Your task to perform on an android device: Open wifi settings Image 0: 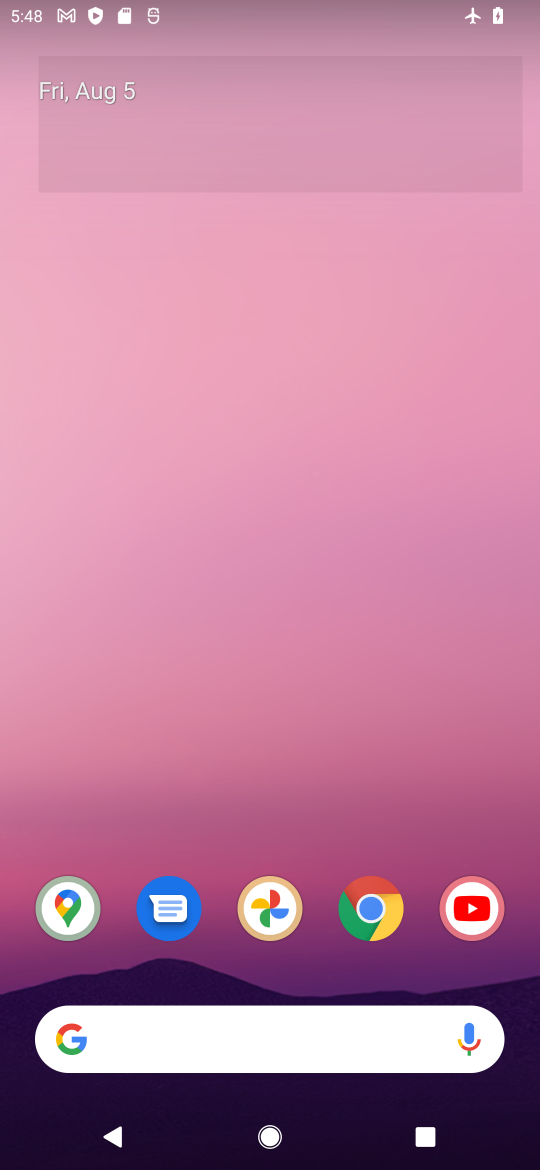
Step 0: click (227, 289)
Your task to perform on an android device: Open wifi settings Image 1: 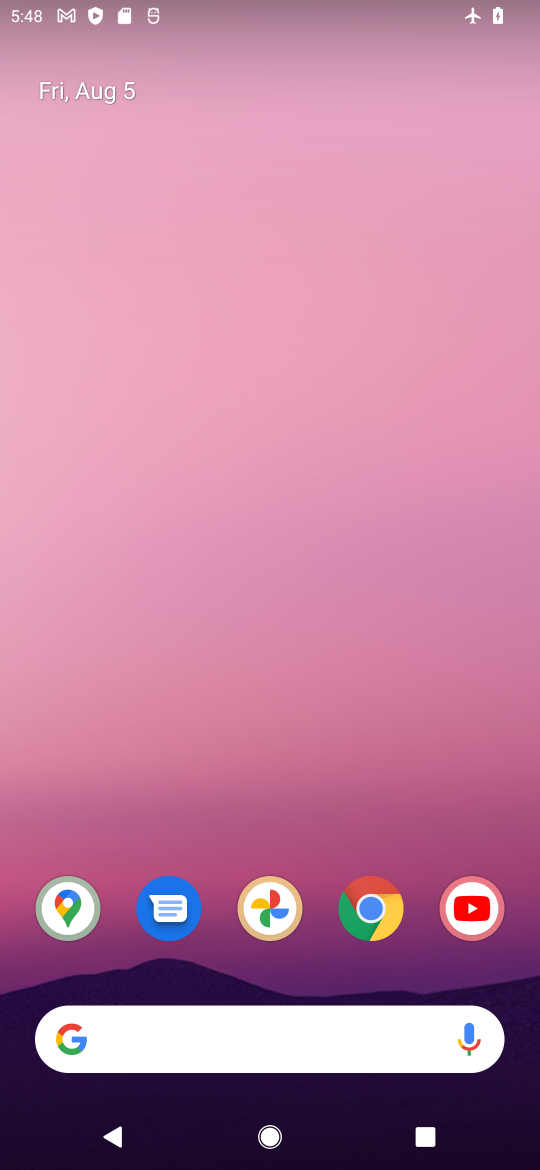
Step 1: drag from (290, 102) to (290, 22)
Your task to perform on an android device: Open wifi settings Image 2: 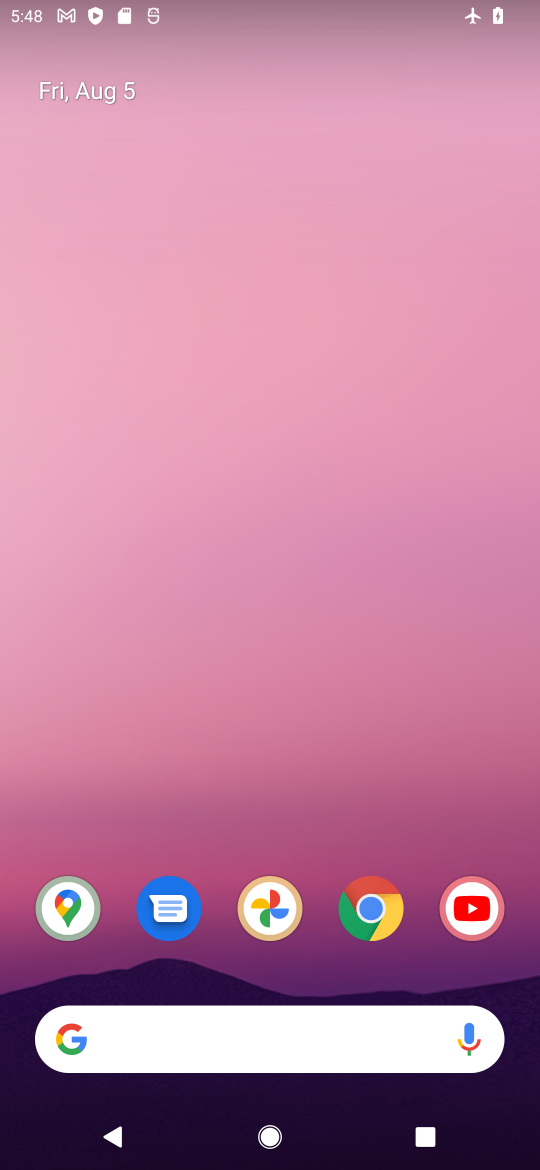
Step 2: drag from (263, 914) to (285, 131)
Your task to perform on an android device: Open wifi settings Image 3: 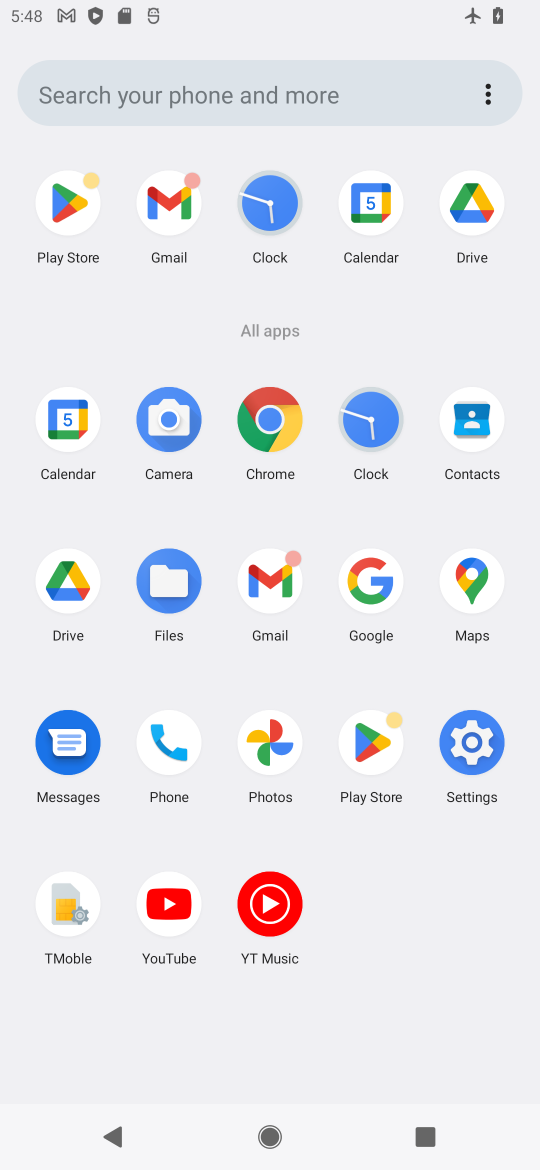
Step 3: click (469, 784)
Your task to perform on an android device: Open wifi settings Image 4: 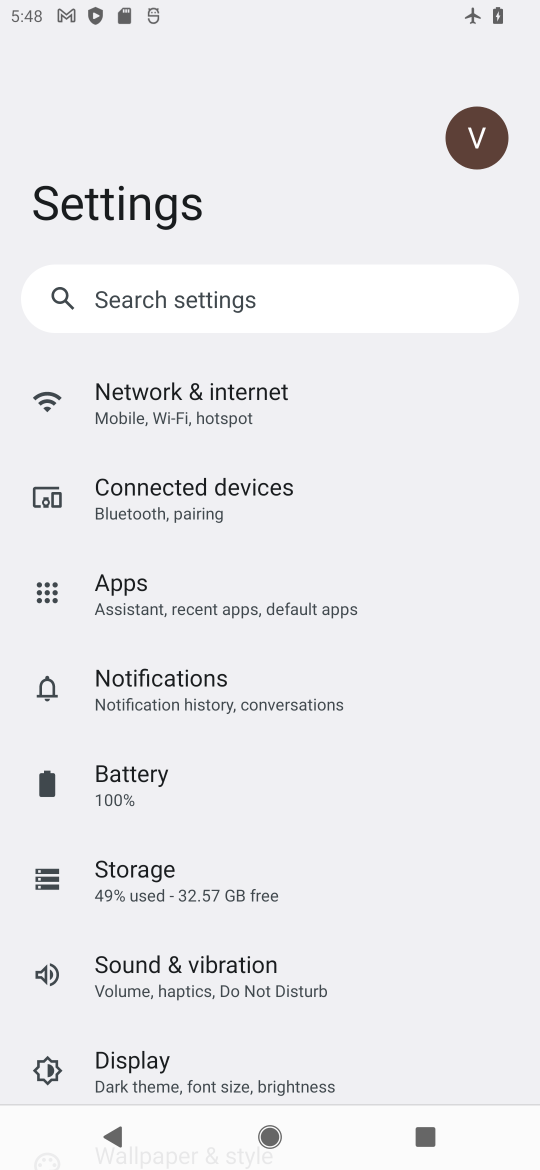
Step 4: click (114, 418)
Your task to perform on an android device: Open wifi settings Image 5: 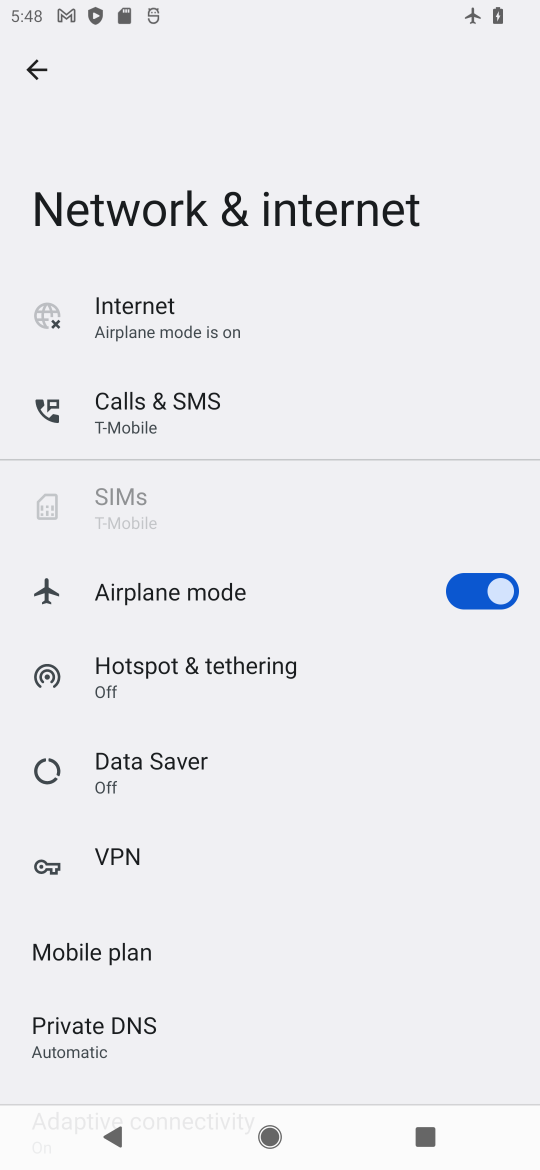
Step 5: click (175, 330)
Your task to perform on an android device: Open wifi settings Image 6: 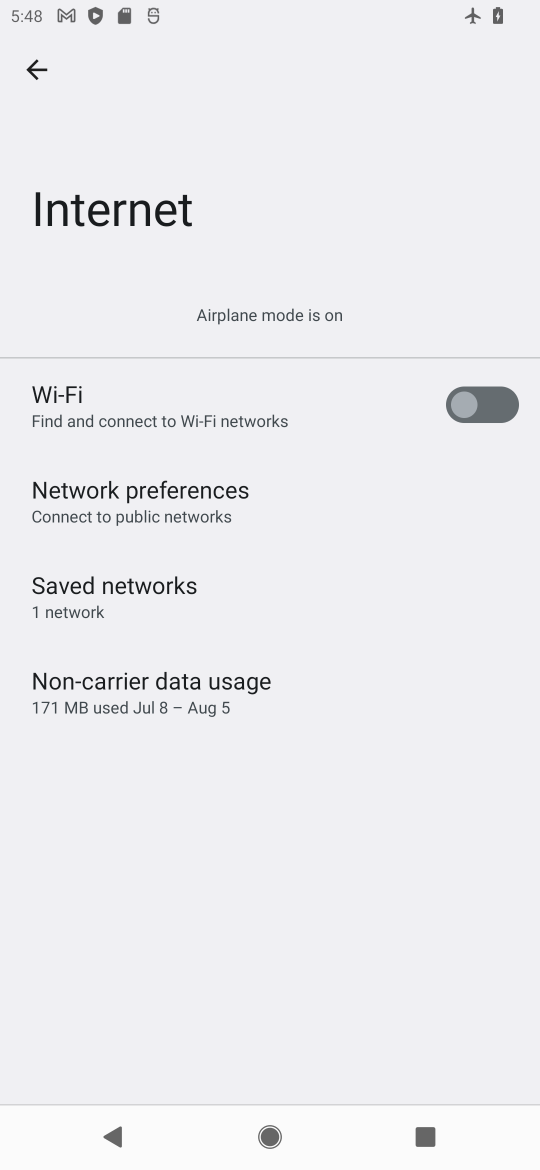
Step 6: click (117, 428)
Your task to perform on an android device: Open wifi settings Image 7: 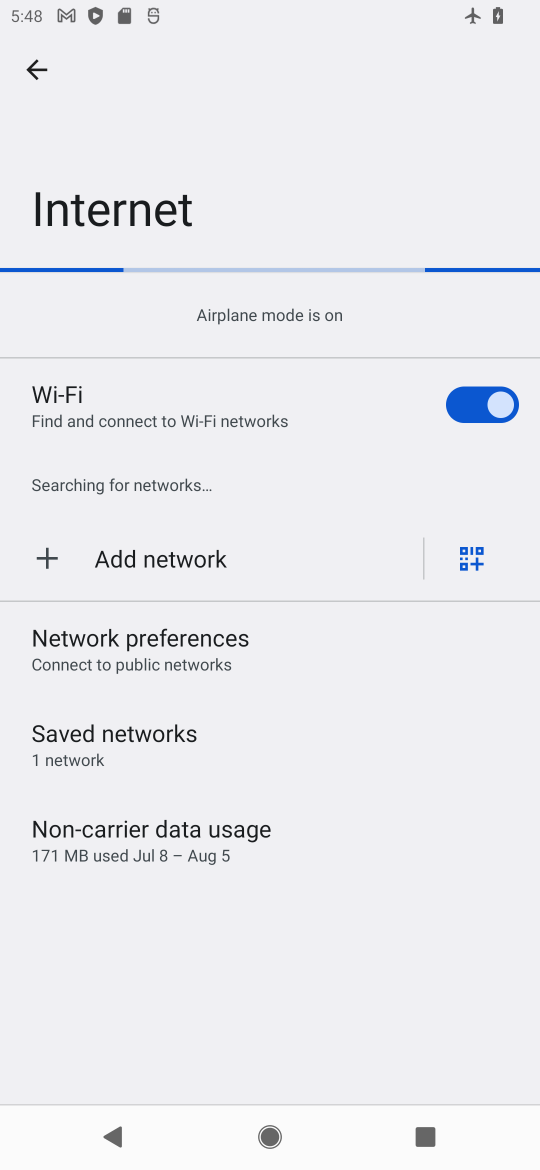
Step 7: task complete